Your task to perform on an android device: Is it going to rain tomorrow? Image 0: 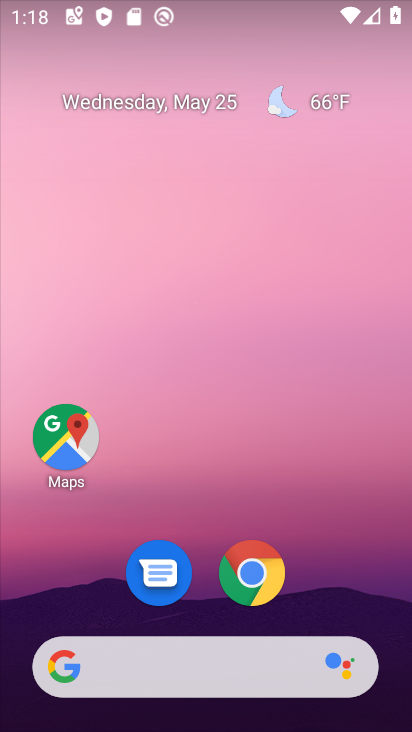
Step 0: click (320, 105)
Your task to perform on an android device: Is it going to rain tomorrow? Image 1: 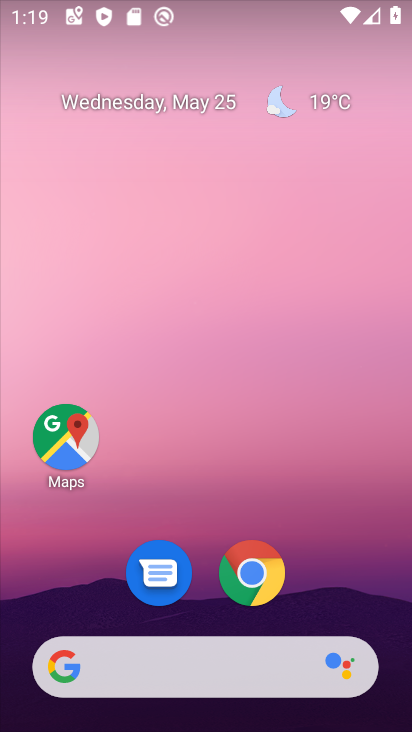
Step 1: click (318, 98)
Your task to perform on an android device: Is it going to rain tomorrow? Image 2: 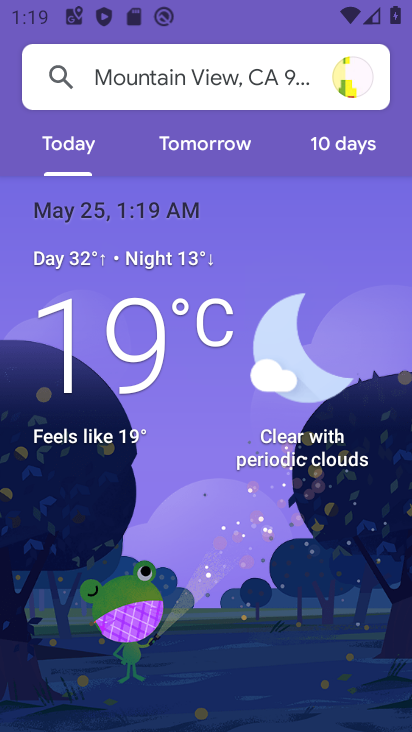
Step 2: drag from (259, 640) to (251, 156)
Your task to perform on an android device: Is it going to rain tomorrow? Image 3: 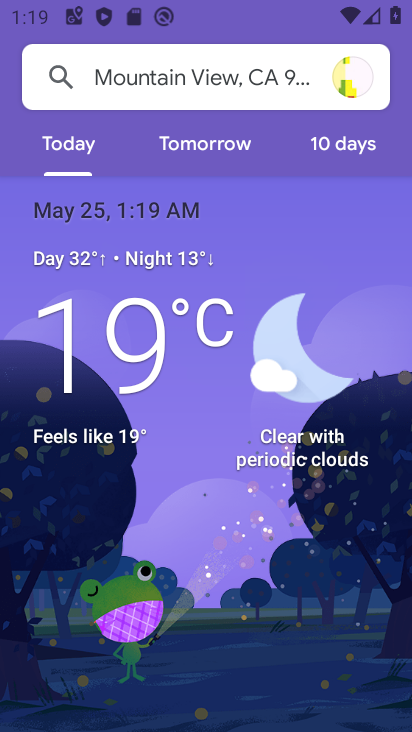
Step 3: drag from (218, 640) to (247, 401)
Your task to perform on an android device: Is it going to rain tomorrow? Image 4: 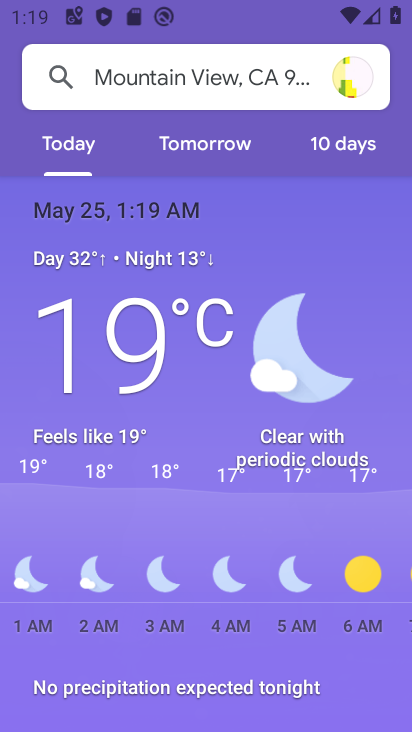
Step 4: click (198, 135)
Your task to perform on an android device: Is it going to rain tomorrow? Image 5: 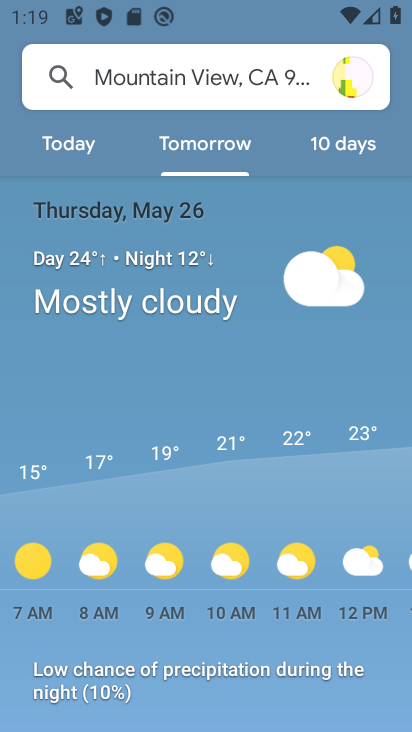
Step 5: drag from (373, 551) to (8, 534)
Your task to perform on an android device: Is it going to rain tomorrow? Image 6: 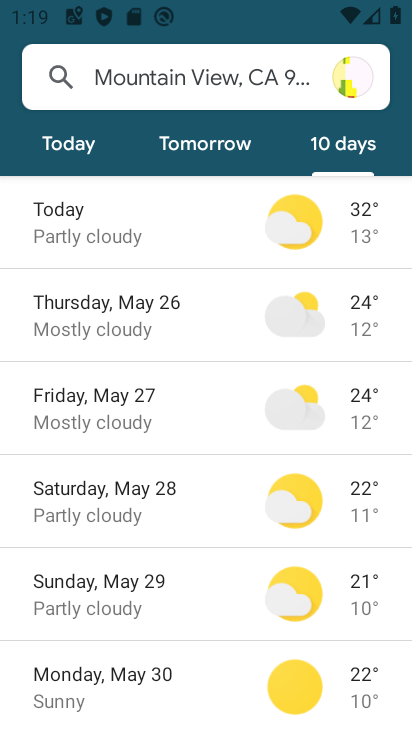
Step 6: click (200, 146)
Your task to perform on an android device: Is it going to rain tomorrow? Image 7: 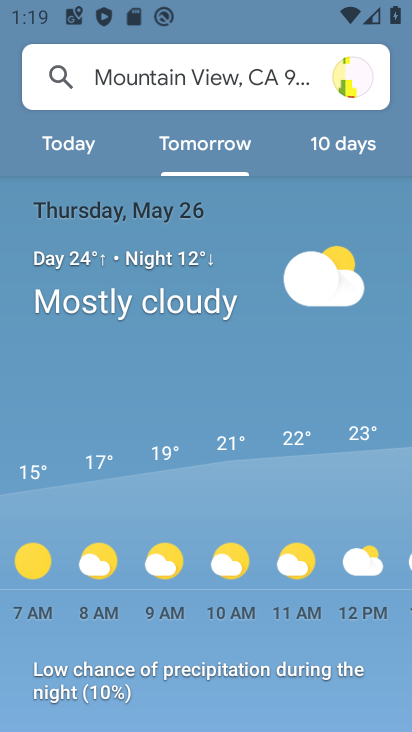
Step 7: task complete